Your task to perform on an android device: Go to Google maps Image 0: 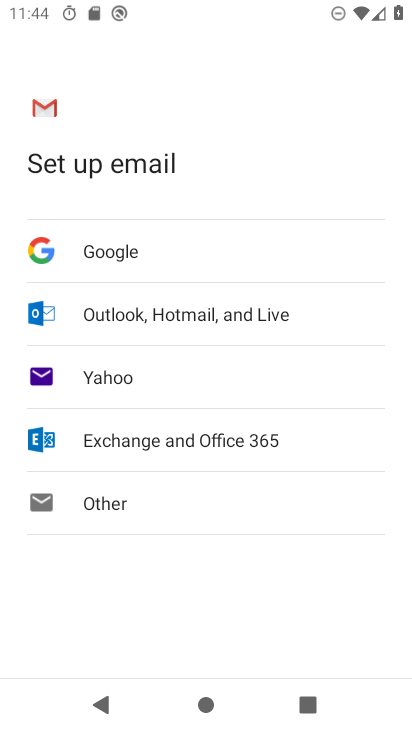
Step 0: drag from (191, 602) to (237, 504)
Your task to perform on an android device: Go to Google maps Image 1: 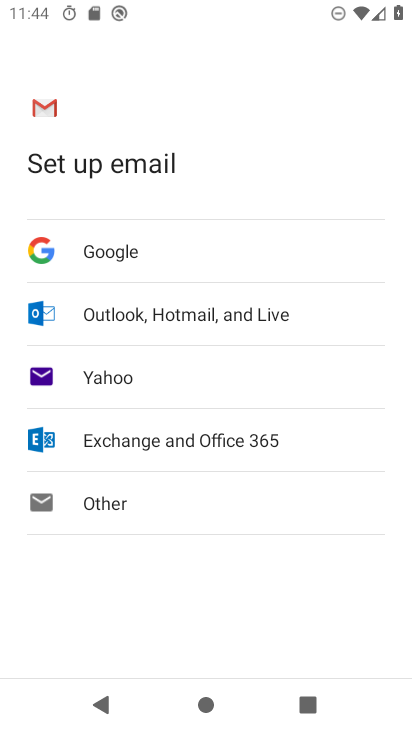
Step 1: press home button
Your task to perform on an android device: Go to Google maps Image 2: 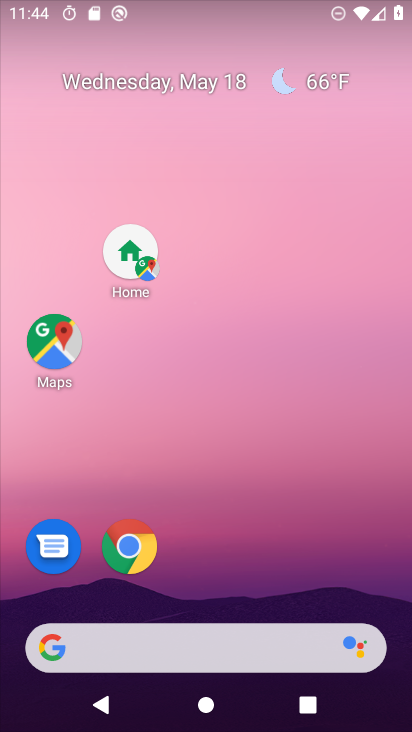
Step 2: click (42, 363)
Your task to perform on an android device: Go to Google maps Image 3: 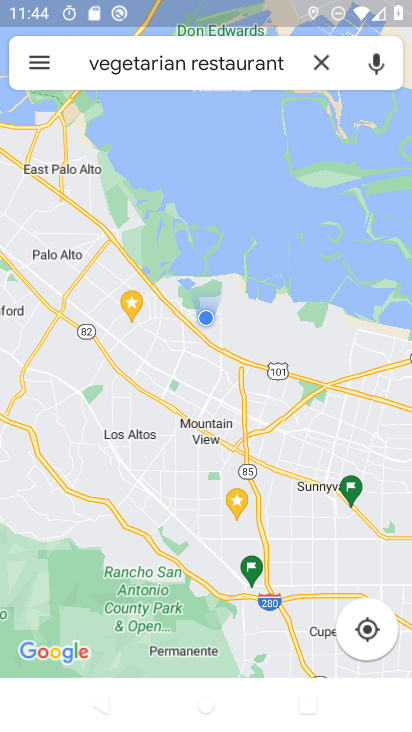
Step 3: task complete